Your task to perform on an android device: Open Google Maps Image 0: 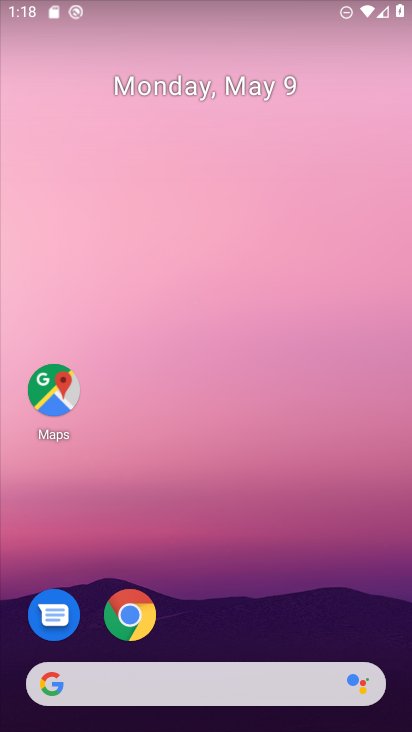
Step 0: drag from (235, 572) to (244, 150)
Your task to perform on an android device: Open Google Maps Image 1: 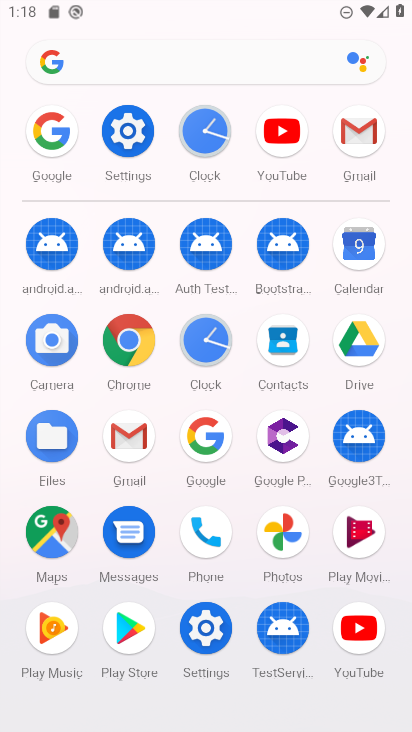
Step 1: click (55, 534)
Your task to perform on an android device: Open Google Maps Image 2: 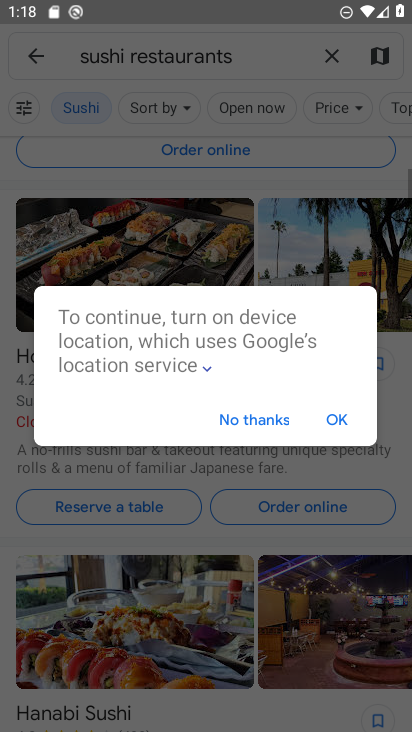
Step 2: click (263, 423)
Your task to perform on an android device: Open Google Maps Image 3: 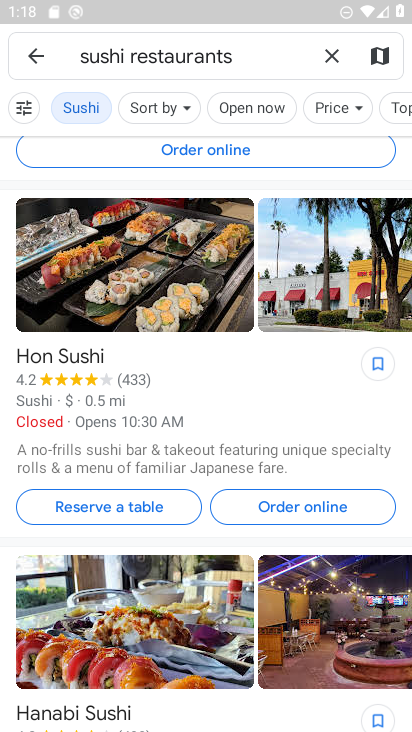
Step 3: task complete